Your task to perform on an android device: open device folders in google photos Image 0: 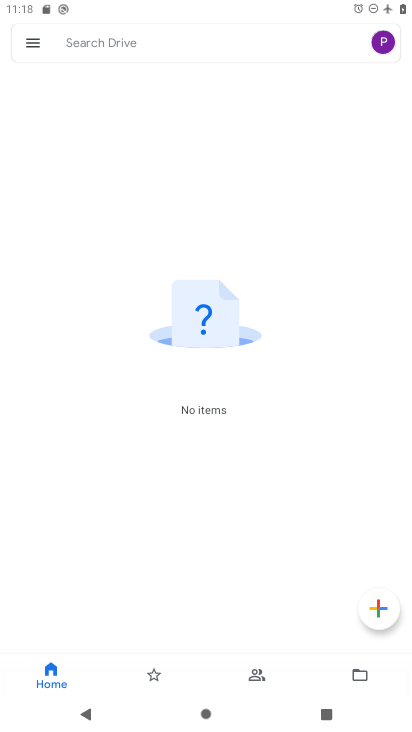
Step 0: press home button
Your task to perform on an android device: open device folders in google photos Image 1: 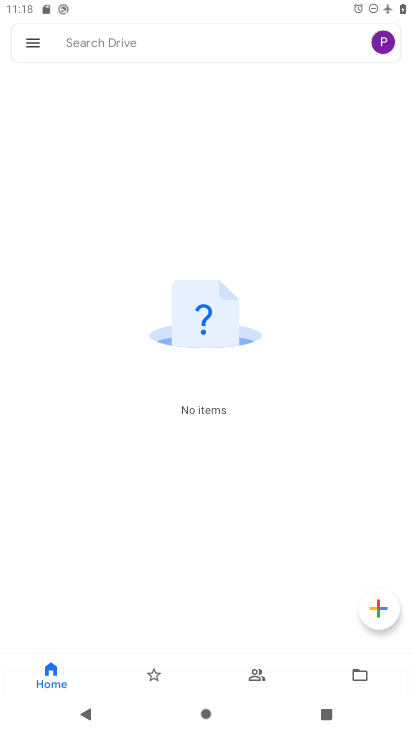
Step 1: press home button
Your task to perform on an android device: open device folders in google photos Image 2: 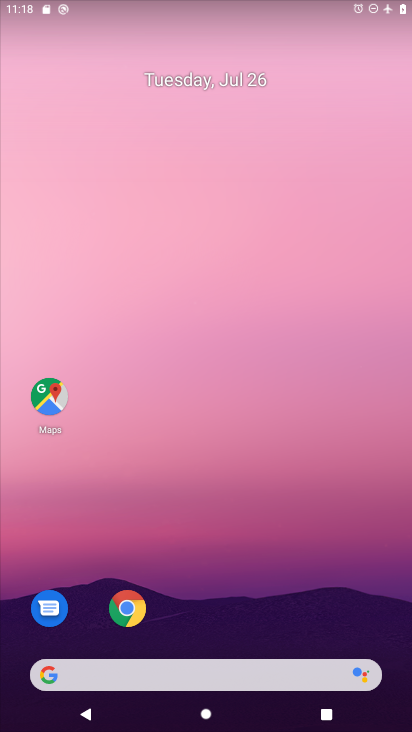
Step 2: drag from (235, 623) to (210, 97)
Your task to perform on an android device: open device folders in google photos Image 3: 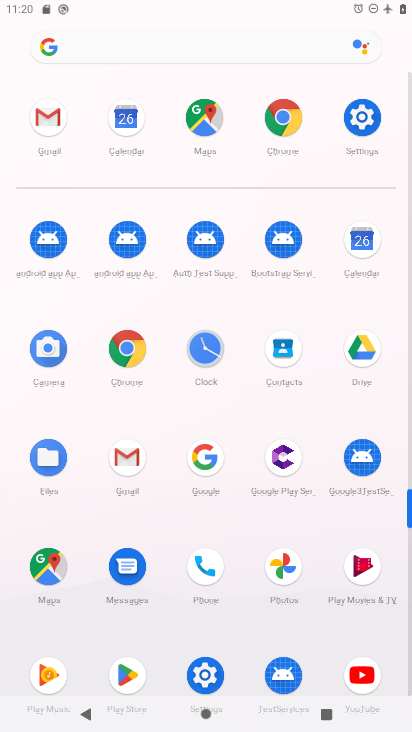
Step 3: click (291, 566)
Your task to perform on an android device: open device folders in google photos Image 4: 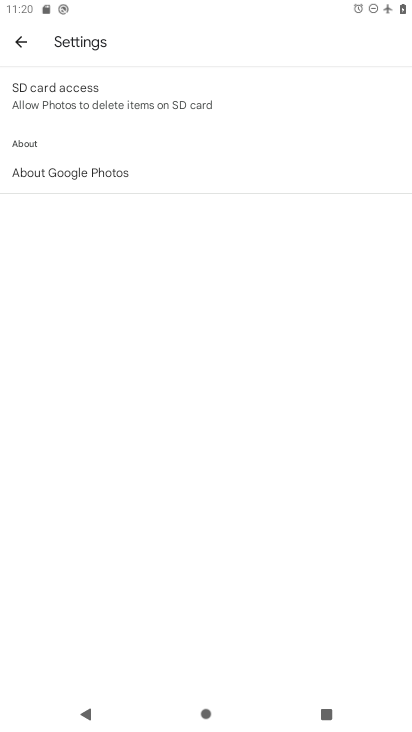
Step 4: click (27, 45)
Your task to perform on an android device: open device folders in google photos Image 5: 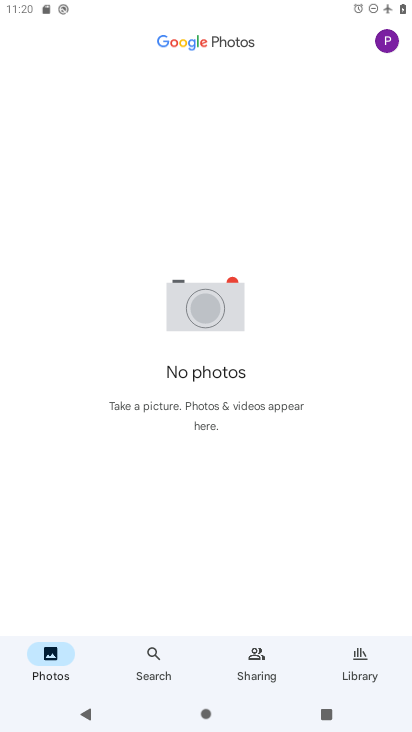
Step 5: click (395, 41)
Your task to perform on an android device: open device folders in google photos Image 6: 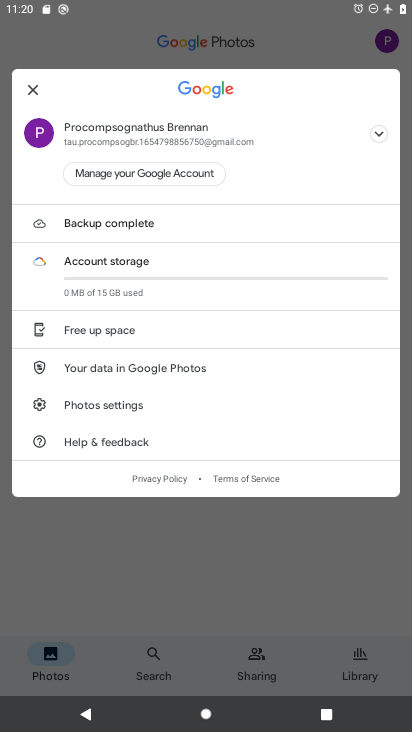
Step 6: click (269, 549)
Your task to perform on an android device: open device folders in google photos Image 7: 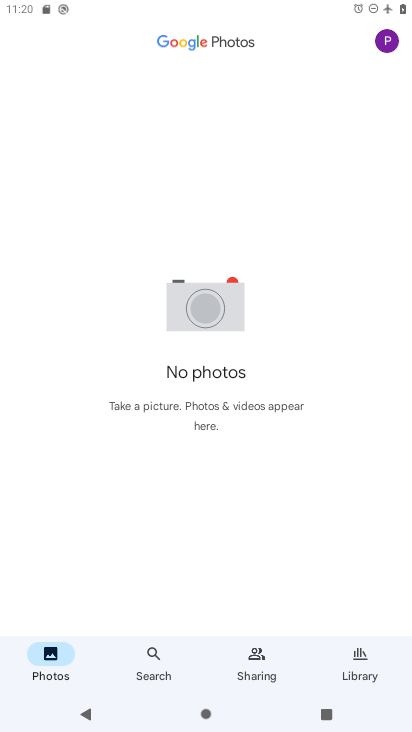
Step 7: click (333, 637)
Your task to perform on an android device: open device folders in google photos Image 8: 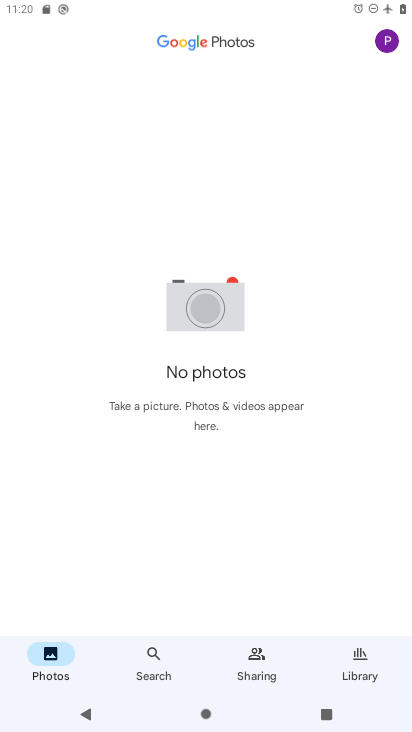
Step 8: click (360, 673)
Your task to perform on an android device: open device folders in google photos Image 9: 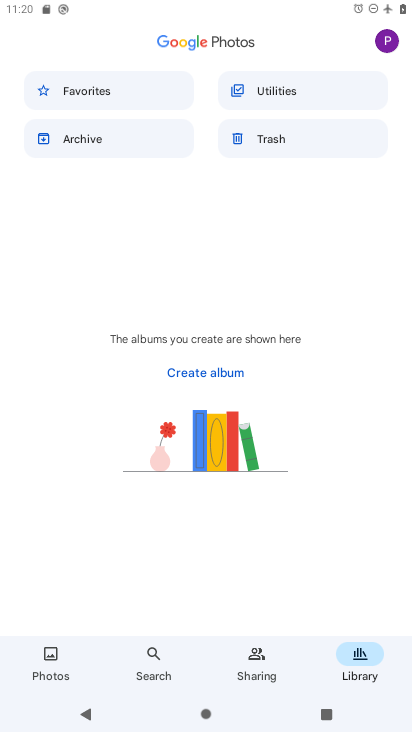
Step 9: click (306, 88)
Your task to perform on an android device: open device folders in google photos Image 10: 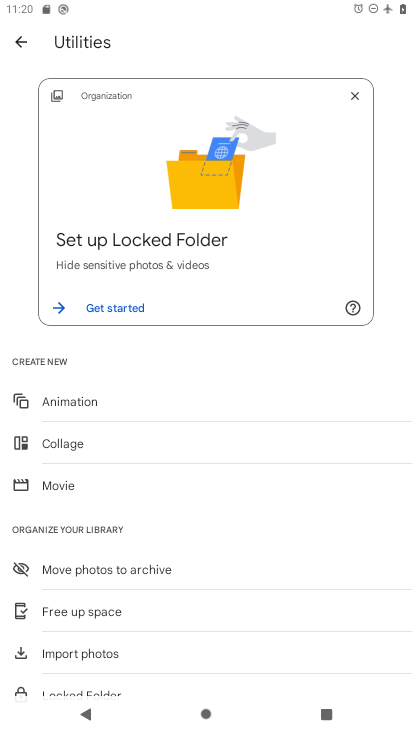
Step 10: task complete